Your task to perform on an android device: open the mobile data screen to see how much data has been used Image 0: 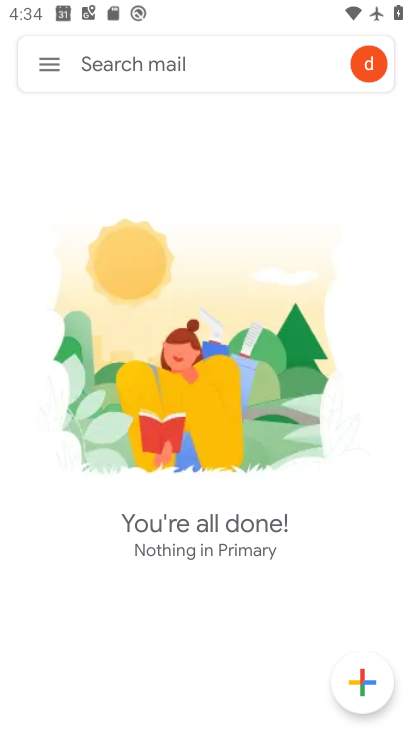
Step 0: press home button
Your task to perform on an android device: open the mobile data screen to see how much data has been used Image 1: 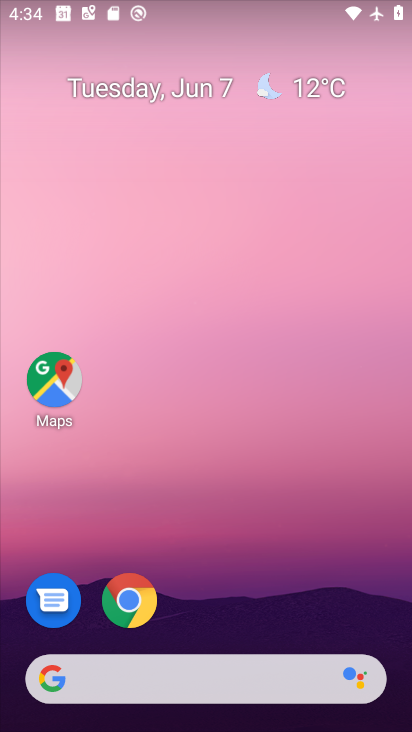
Step 1: drag from (292, 587) to (219, 192)
Your task to perform on an android device: open the mobile data screen to see how much data has been used Image 2: 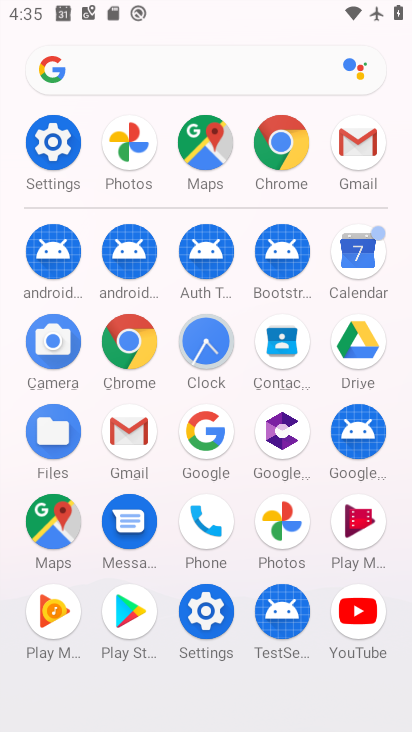
Step 2: click (62, 142)
Your task to perform on an android device: open the mobile data screen to see how much data has been used Image 3: 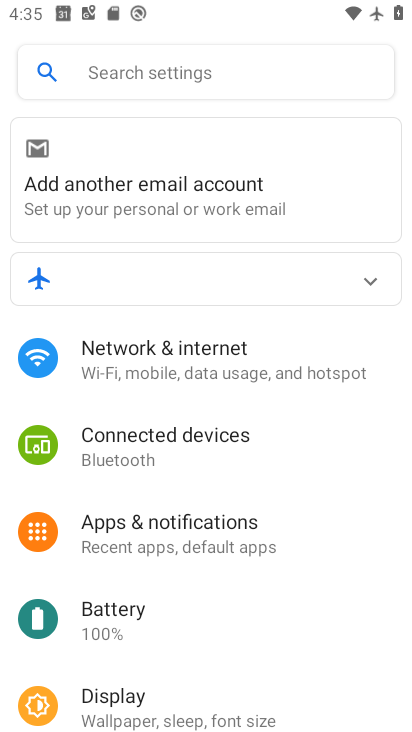
Step 3: click (197, 375)
Your task to perform on an android device: open the mobile data screen to see how much data has been used Image 4: 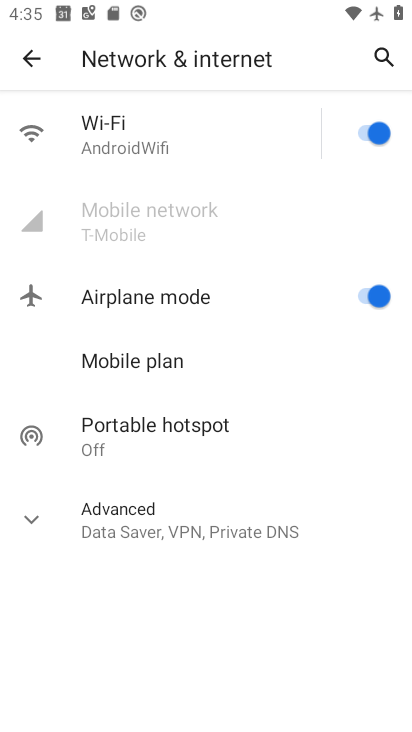
Step 4: click (195, 230)
Your task to perform on an android device: open the mobile data screen to see how much data has been used Image 5: 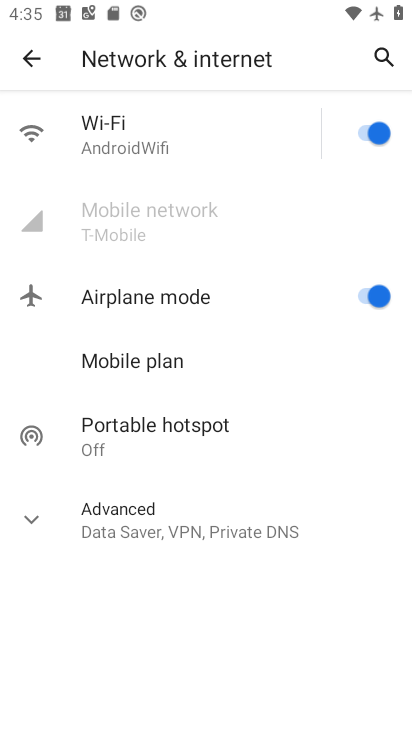
Step 5: task complete